Your task to perform on an android device: Search for "razer blade" on target, select the first entry, and add it to the cart. Image 0: 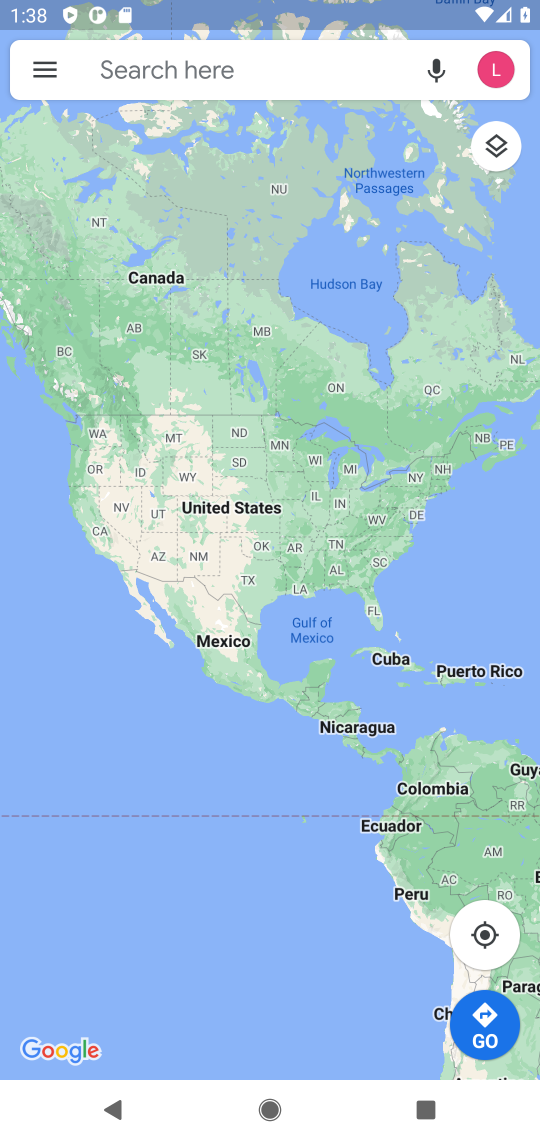
Step 0: press home button
Your task to perform on an android device: Search for "razer blade" on target, select the first entry, and add it to the cart. Image 1: 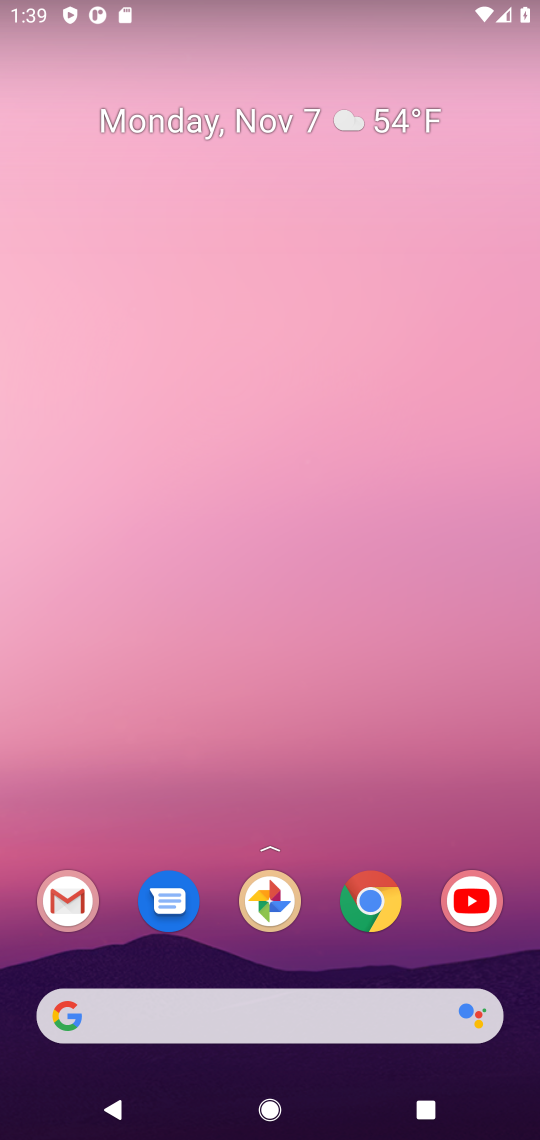
Step 1: click (380, 899)
Your task to perform on an android device: Search for "razer blade" on target, select the first entry, and add it to the cart. Image 2: 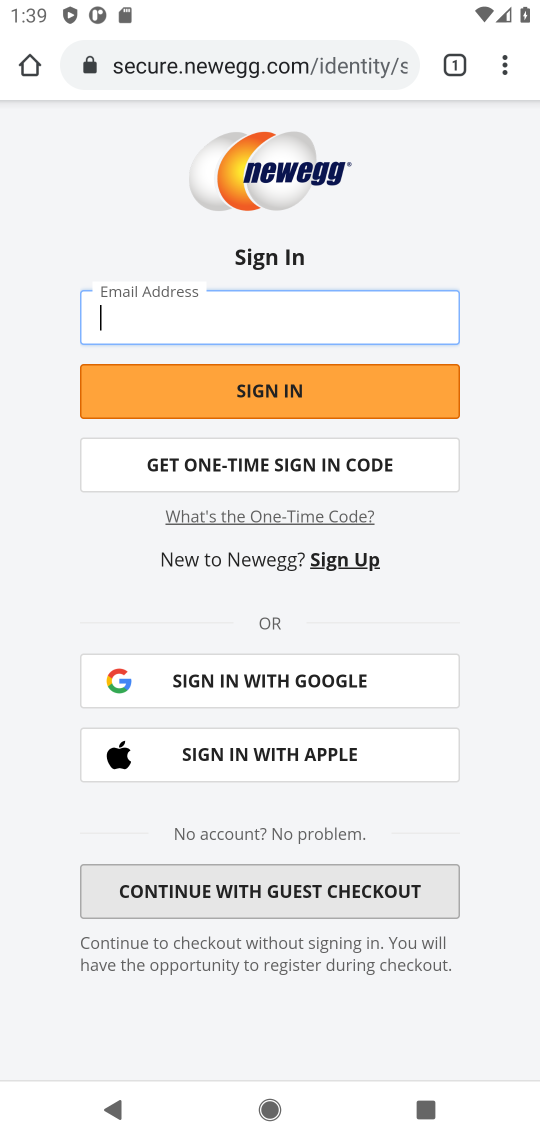
Step 2: click (253, 69)
Your task to perform on an android device: Search for "razer blade" on target, select the first entry, and add it to the cart. Image 3: 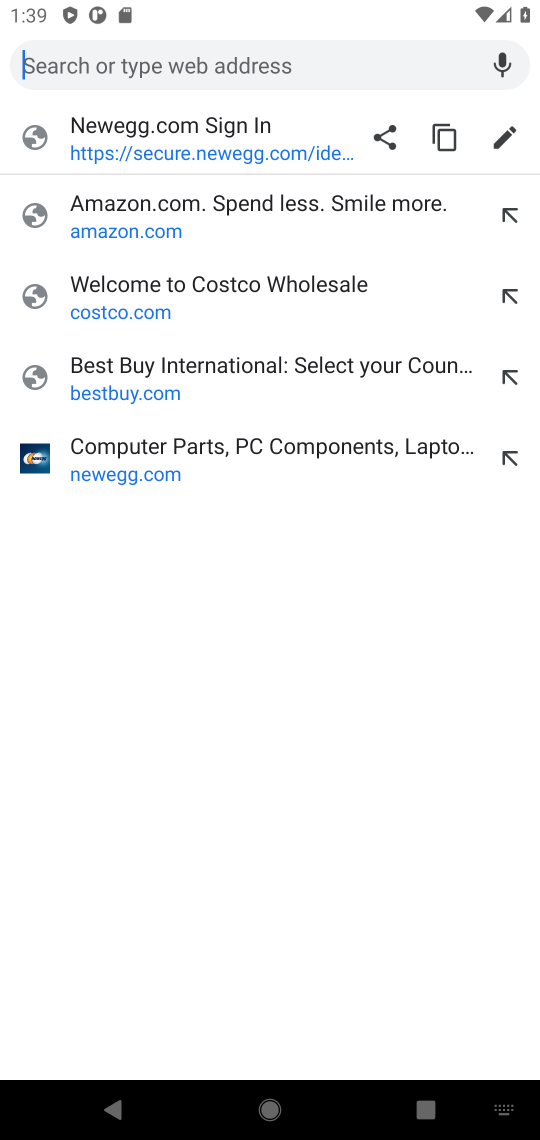
Step 3: type "target.com"
Your task to perform on an android device: Search for "razer blade" on target, select the first entry, and add it to the cart. Image 4: 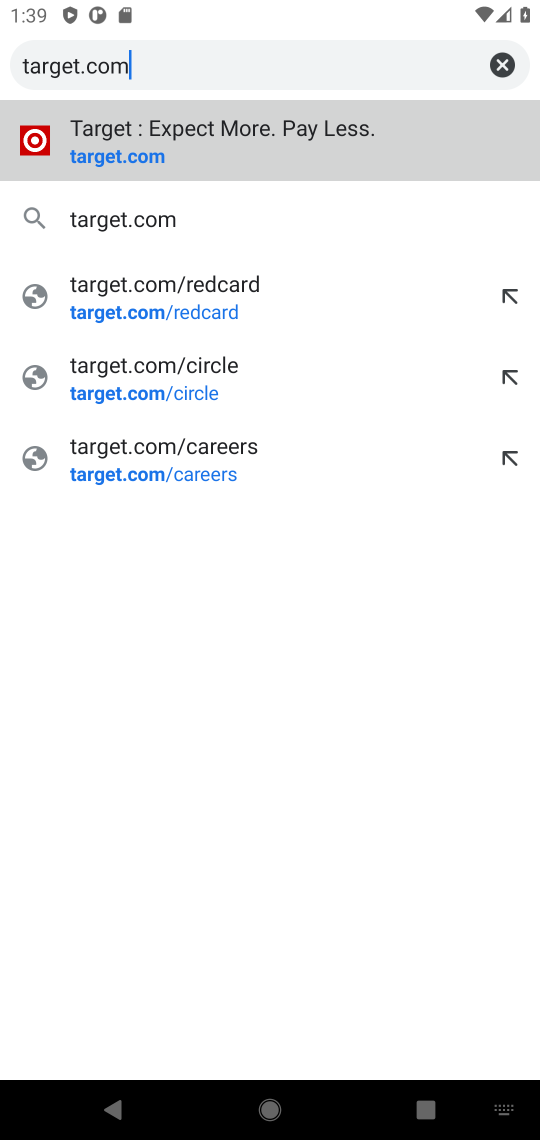
Step 4: click (135, 156)
Your task to perform on an android device: Search for "razer blade" on target, select the first entry, and add it to the cart. Image 5: 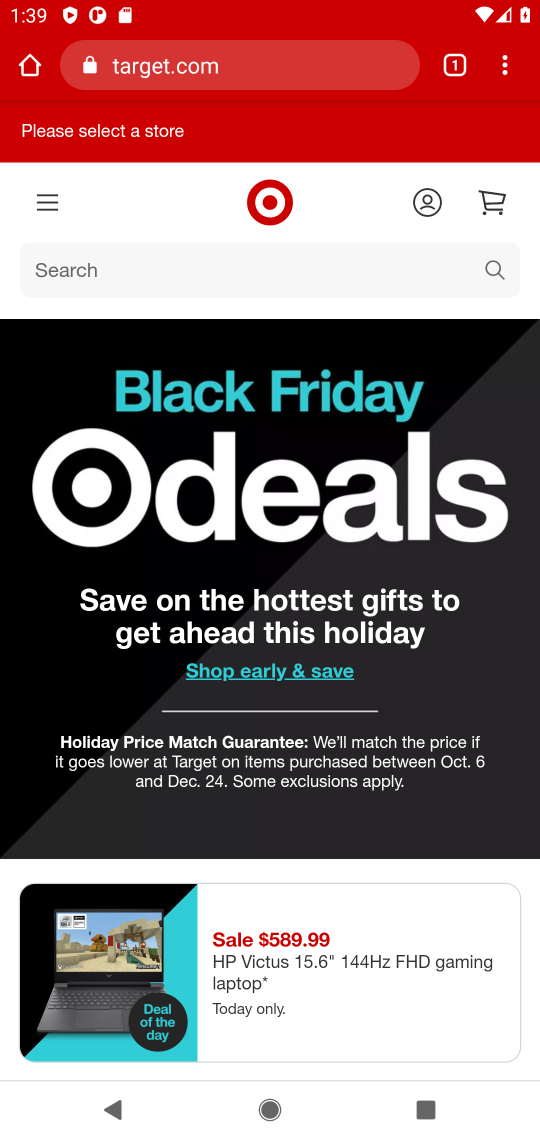
Step 5: click (490, 271)
Your task to perform on an android device: Search for "razer blade" on target, select the first entry, and add it to the cart. Image 6: 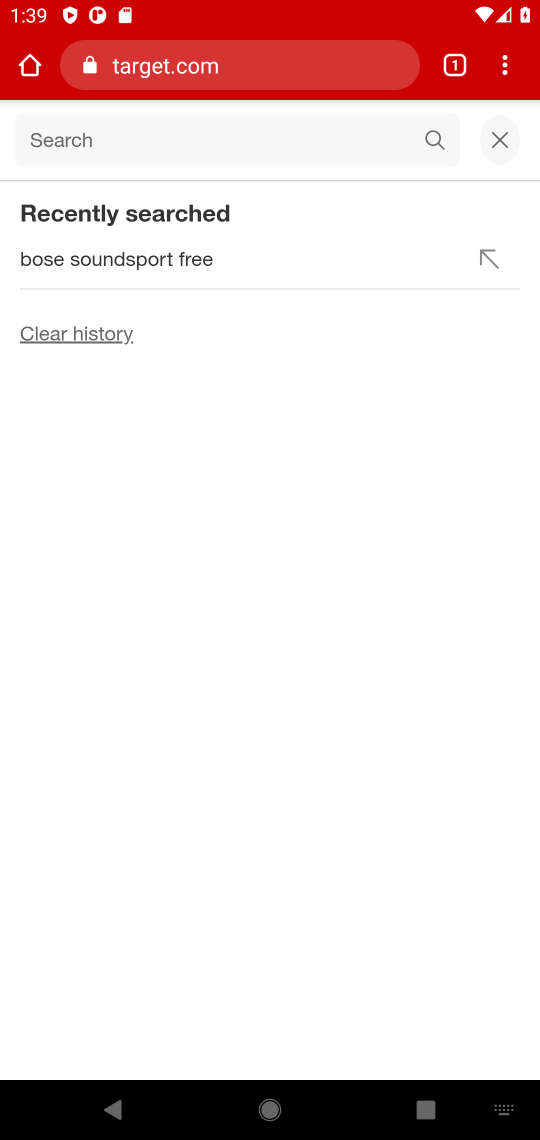
Step 6: click (151, 155)
Your task to perform on an android device: Search for "razer blade" on target, select the first entry, and add it to the cart. Image 7: 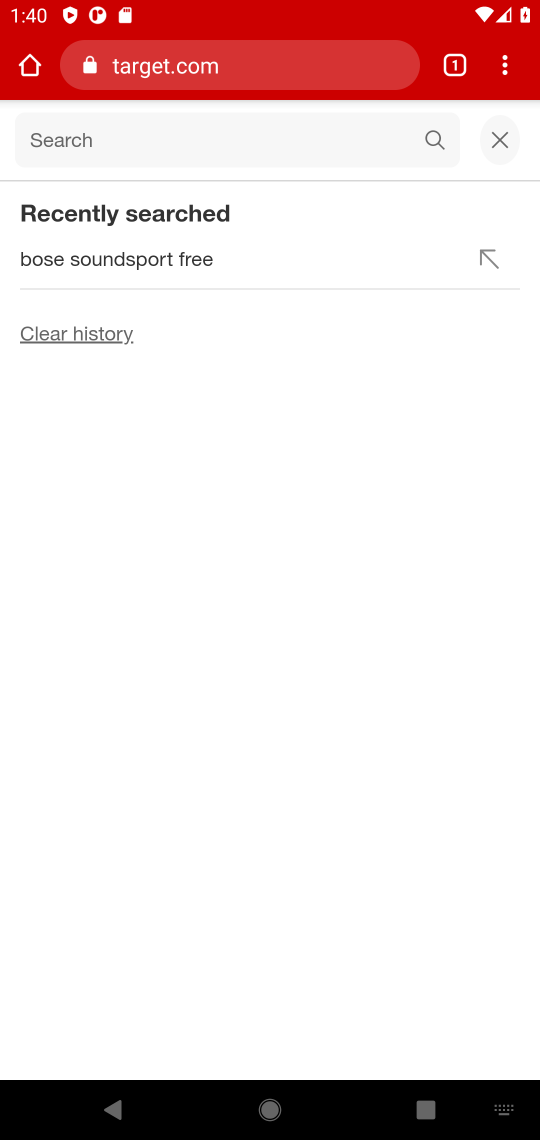
Step 7: type "razer blade"
Your task to perform on an android device: Search for "razer blade" on target, select the first entry, and add it to the cart. Image 8: 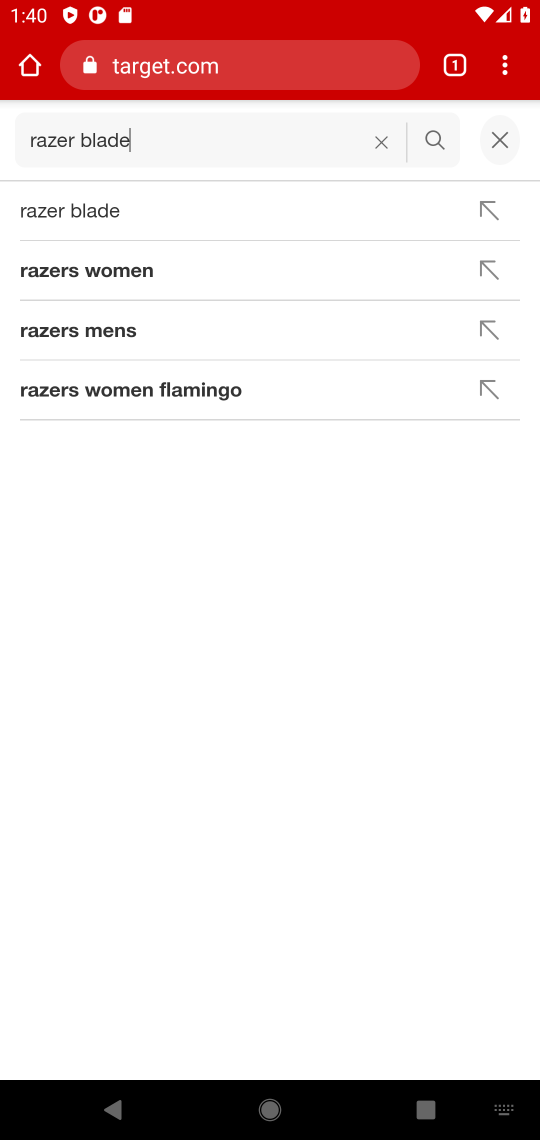
Step 8: click (100, 221)
Your task to perform on an android device: Search for "razer blade" on target, select the first entry, and add it to the cart. Image 9: 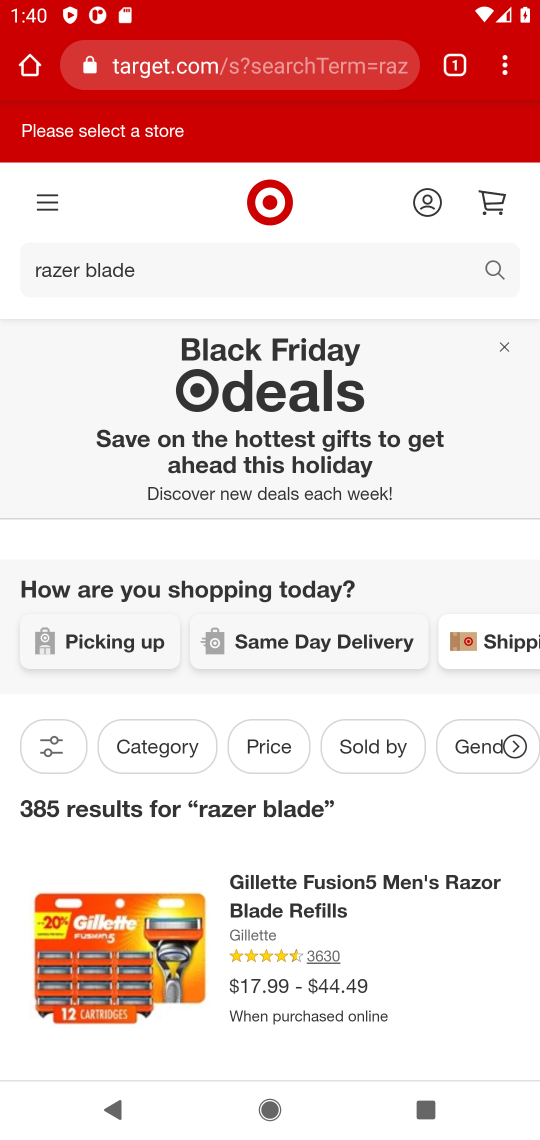
Step 9: click (132, 979)
Your task to perform on an android device: Search for "razer blade" on target, select the first entry, and add it to the cart. Image 10: 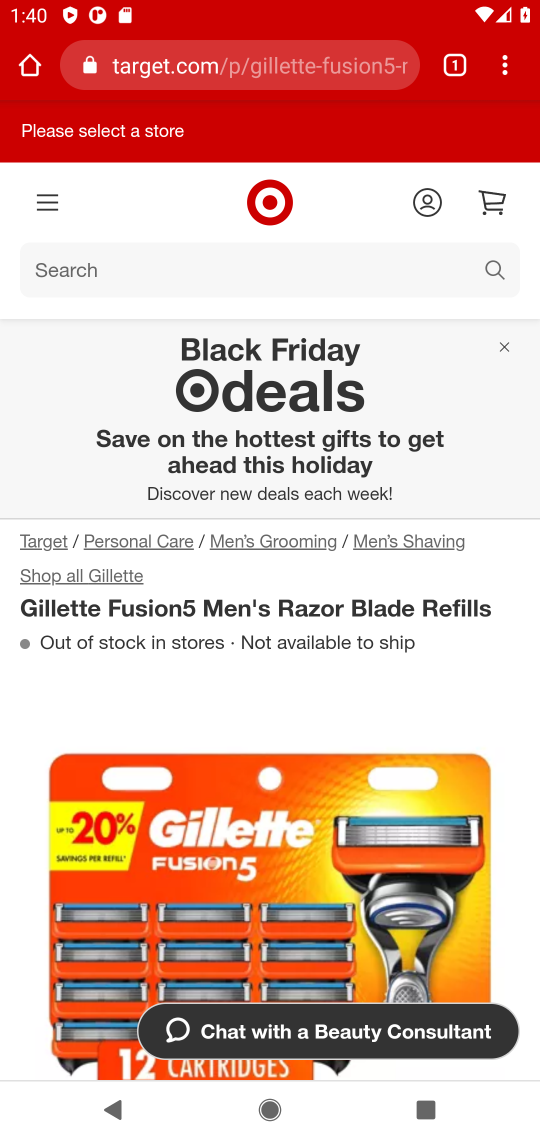
Step 10: drag from (245, 928) to (258, 366)
Your task to perform on an android device: Search for "razer blade" on target, select the first entry, and add it to the cart. Image 11: 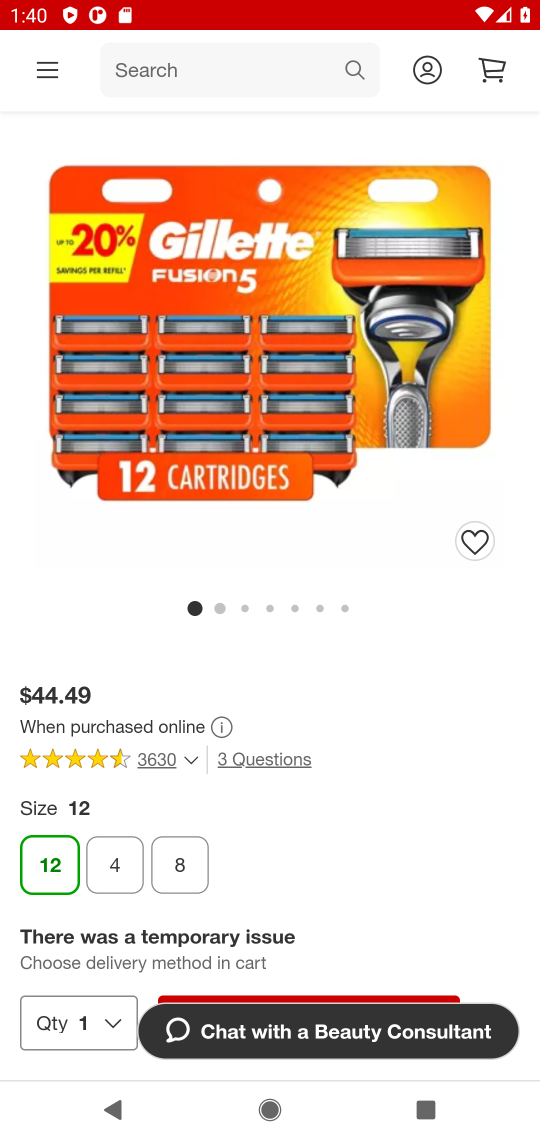
Step 11: drag from (250, 878) to (275, 367)
Your task to perform on an android device: Search for "razer blade" on target, select the first entry, and add it to the cart. Image 12: 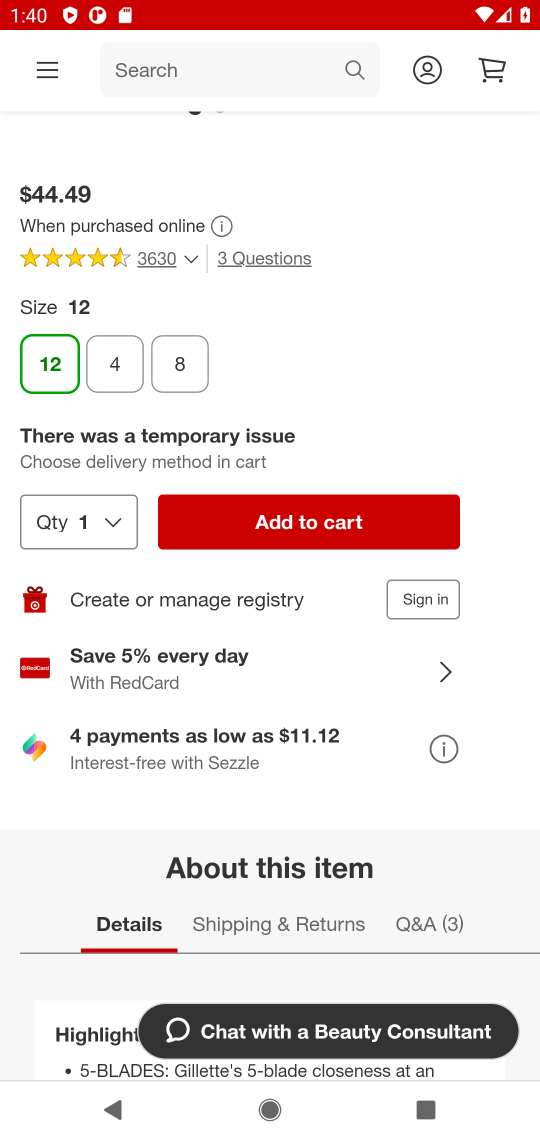
Step 12: click (296, 524)
Your task to perform on an android device: Search for "razer blade" on target, select the first entry, and add it to the cart. Image 13: 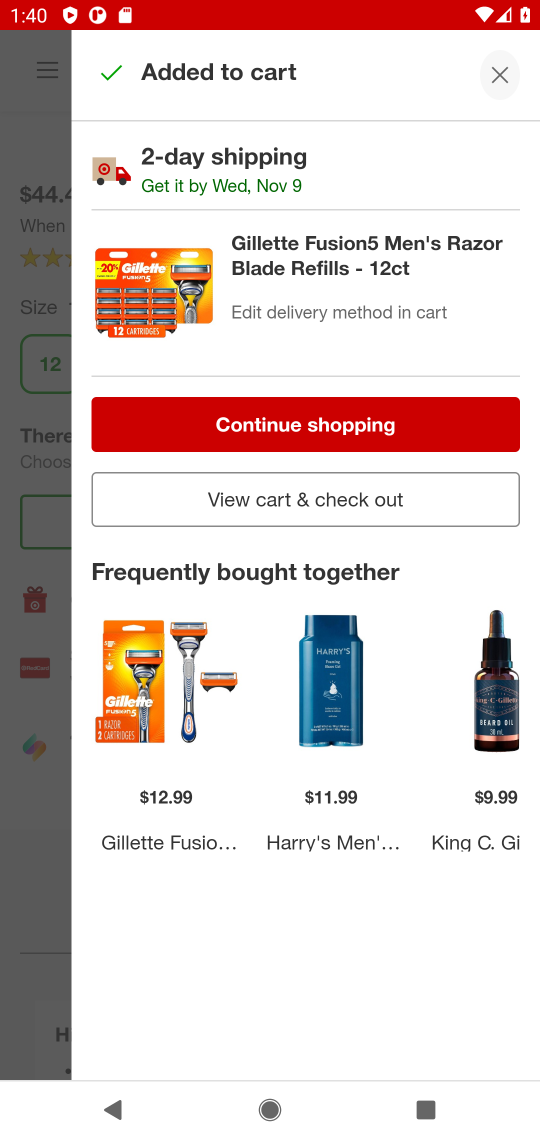
Step 13: task complete